Your task to perform on an android device: Toggle the flashlight Image 0: 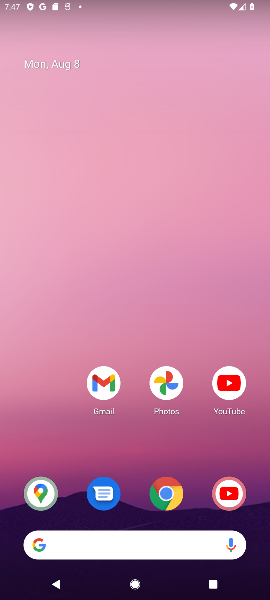
Step 0: drag from (83, 5) to (143, 378)
Your task to perform on an android device: Toggle the flashlight Image 1: 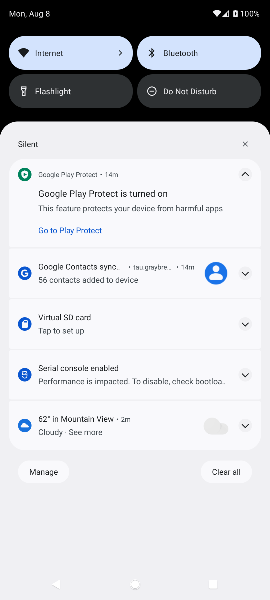
Step 1: click (79, 101)
Your task to perform on an android device: Toggle the flashlight Image 2: 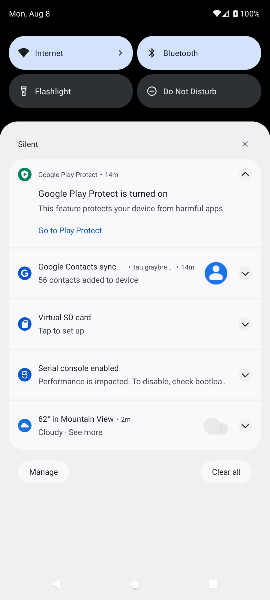
Step 2: task complete